Your task to perform on an android device: Open Google Maps and go to "Timeline" Image 0: 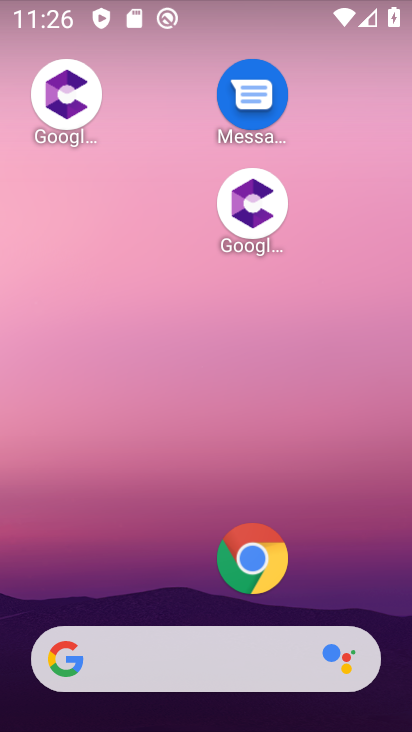
Step 0: drag from (131, 613) to (230, 113)
Your task to perform on an android device: Open Google Maps and go to "Timeline" Image 1: 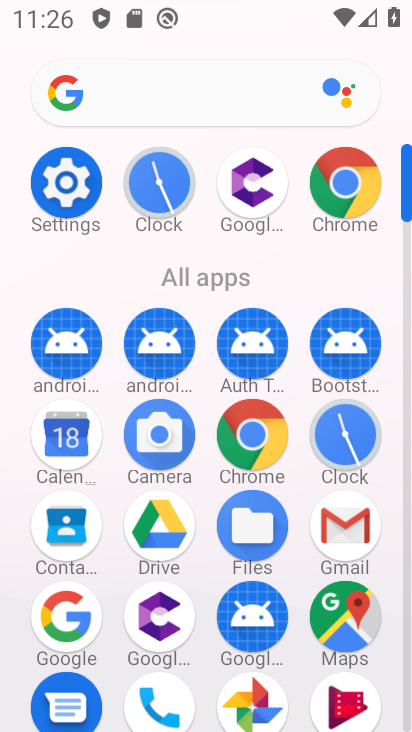
Step 1: click (342, 622)
Your task to perform on an android device: Open Google Maps and go to "Timeline" Image 2: 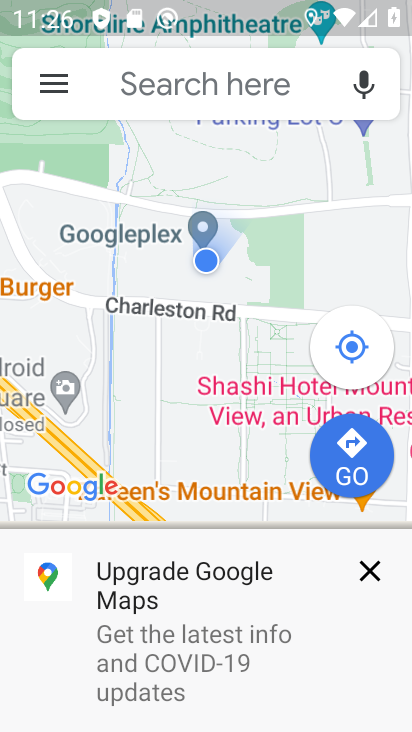
Step 2: click (40, 82)
Your task to perform on an android device: Open Google Maps and go to "Timeline" Image 3: 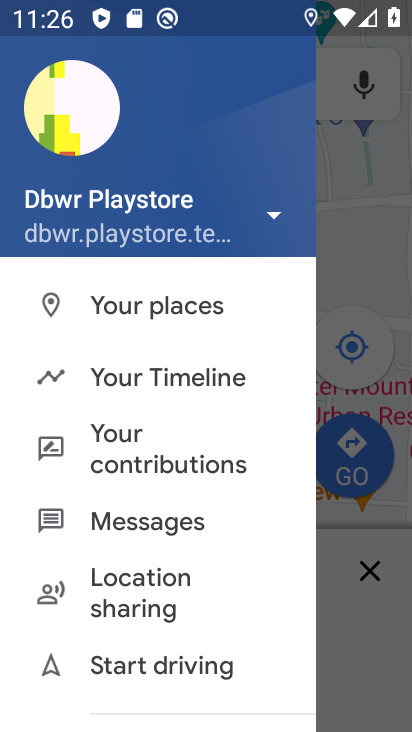
Step 3: click (207, 370)
Your task to perform on an android device: Open Google Maps and go to "Timeline" Image 4: 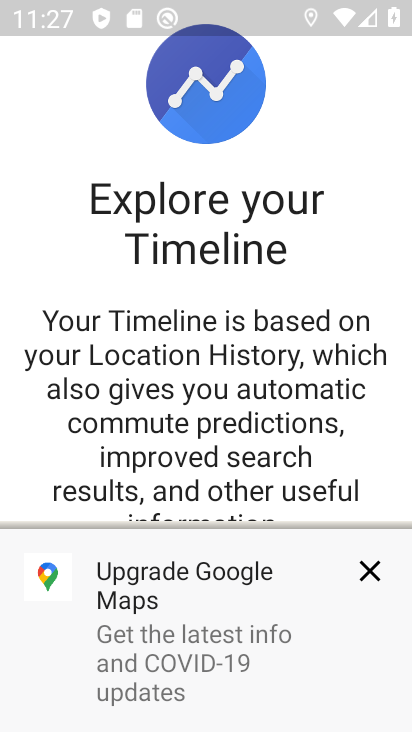
Step 4: task complete